Your task to perform on an android device: turn off airplane mode Image 0: 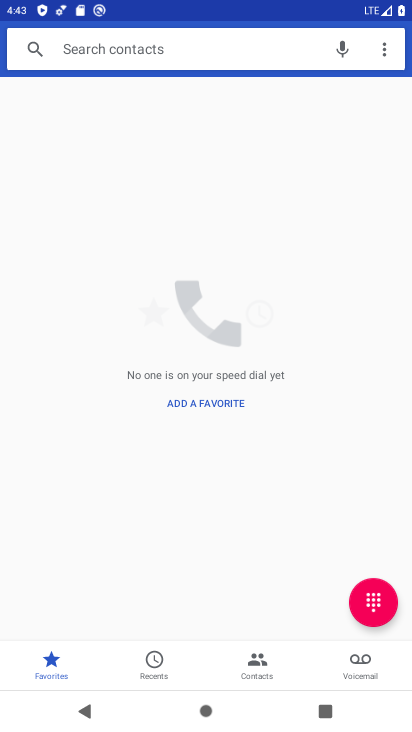
Step 0: press home button
Your task to perform on an android device: turn off airplane mode Image 1: 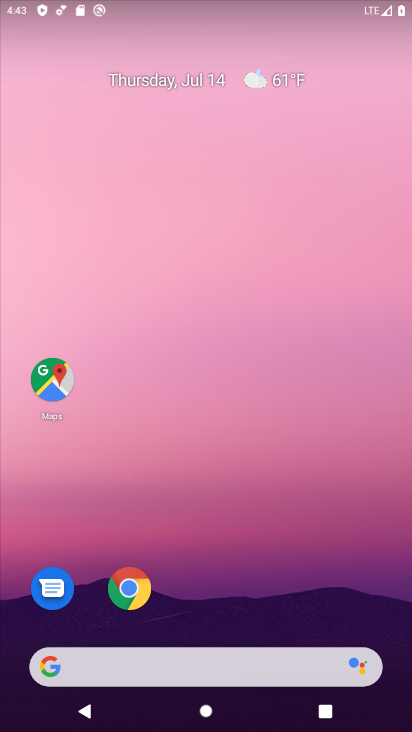
Step 1: drag from (272, 607) to (197, 13)
Your task to perform on an android device: turn off airplane mode Image 2: 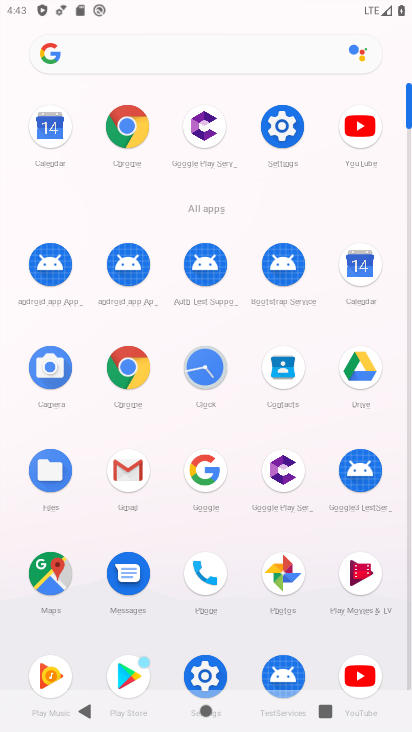
Step 2: click (281, 143)
Your task to perform on an android device: turn off airplane mode Image 3: 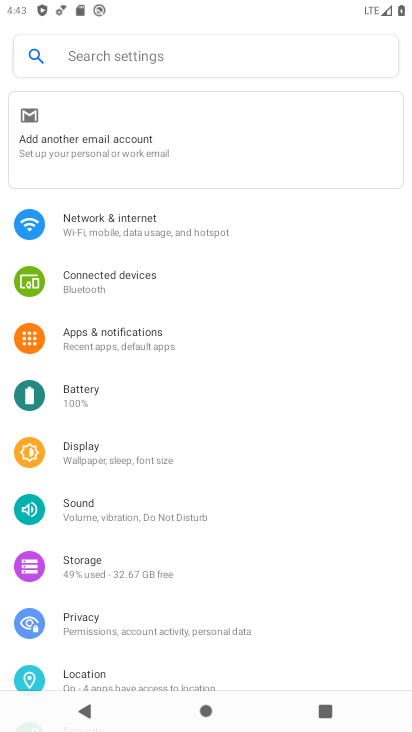
Step 3: click (245, 217)
Your task to perform on an android device: turn off airplane mode Image 4: 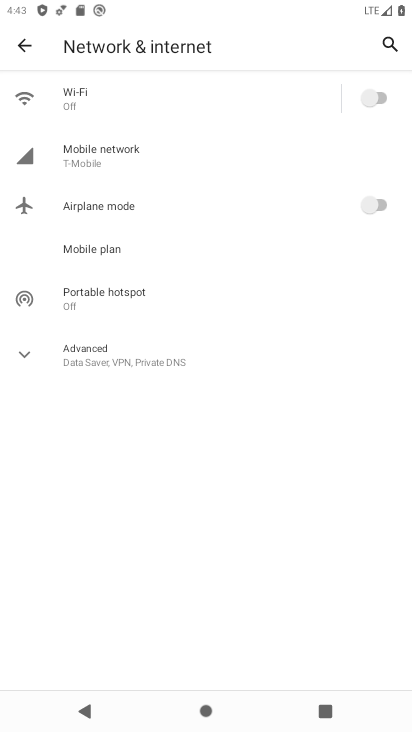
Step 4: task complete